Your task to perform on an android device: Open the stopwatch Image 0: 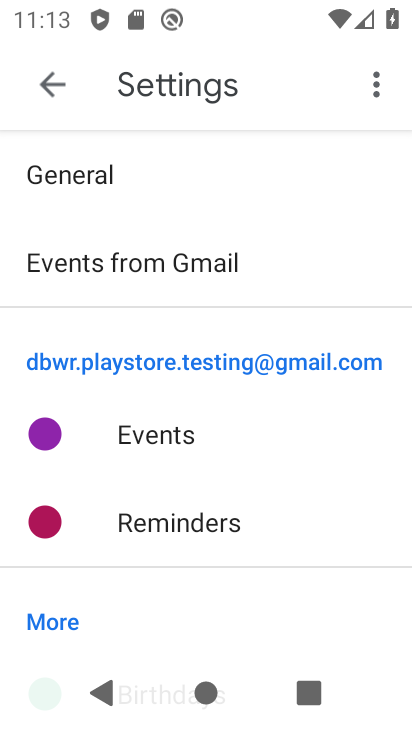
Step 0: press home button
Your task to perform on an android device: Open the stopwatch Image 1: 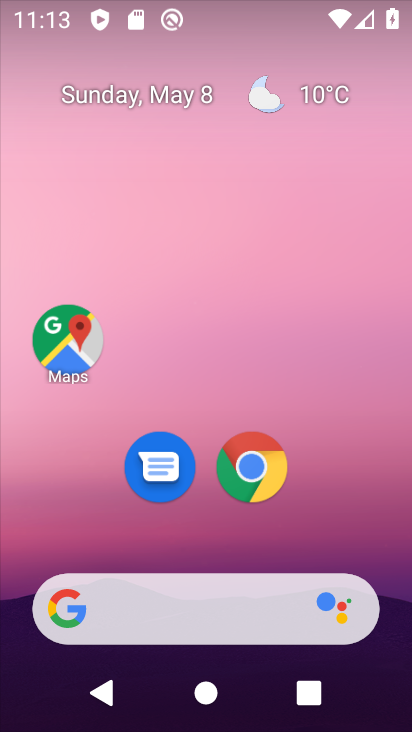
Step 1: drag from (290, 540) to (328, 46)
Your task to perform on an android device: Open the stopwatch Image 2: 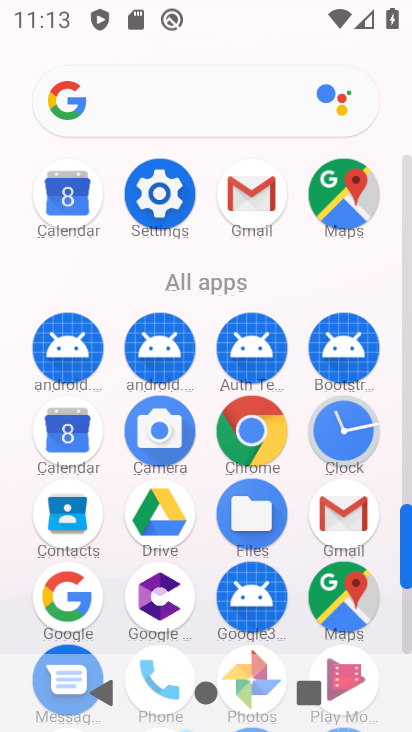
Step 2: click (360, 429)
Your task to perform on an android device: Open the stopwatch Image 3: 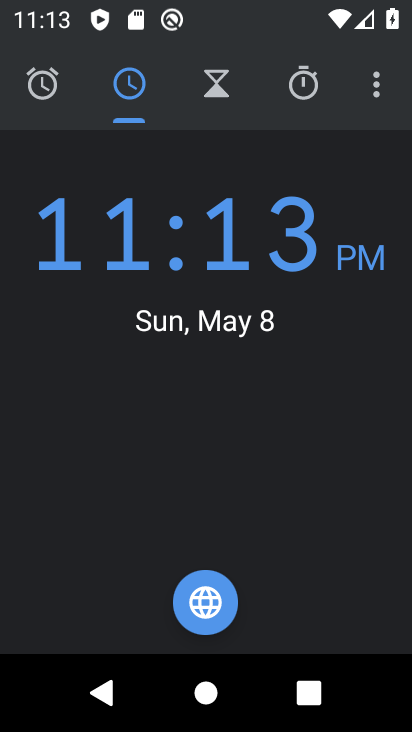
Step 3: click (312, 98)
Your task to perform on an android device: Open the stopwatch Image 4: 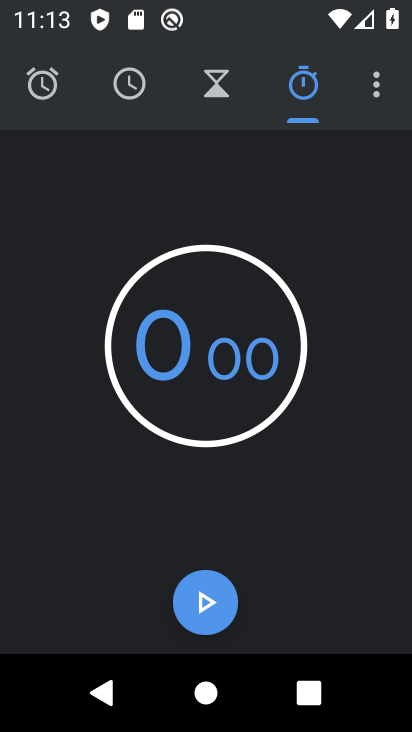
Step 4: click (215, 624)
Your task to perform on an android device: Open the stopwatch Image 5: 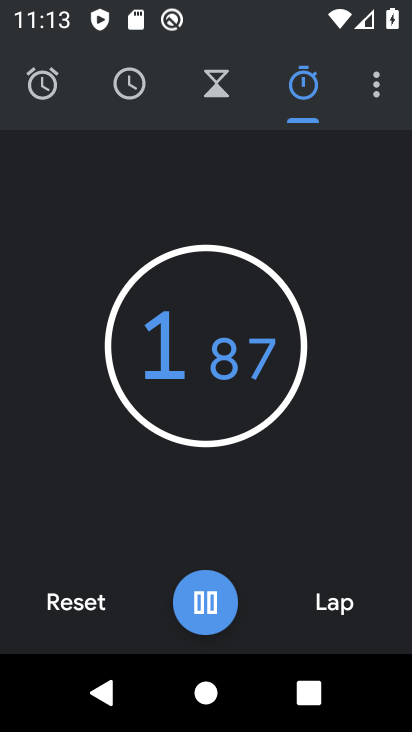
Step 5: task complete